Your task to perform on an android device: open wifi settings Image 0: 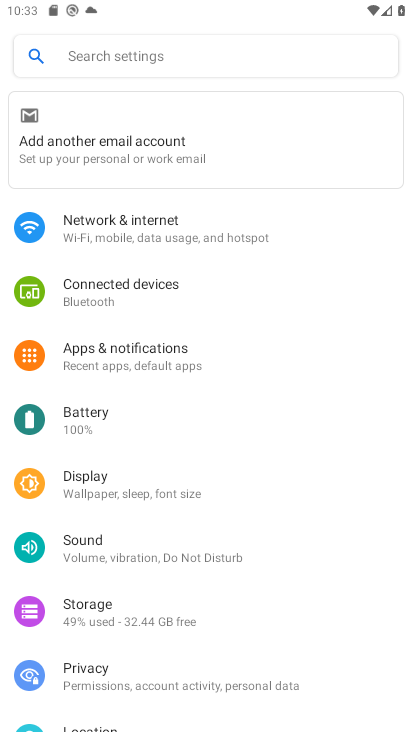
Step 0: click (181, 239)
Your task to perform on an android device: open wifi settings Image 1: 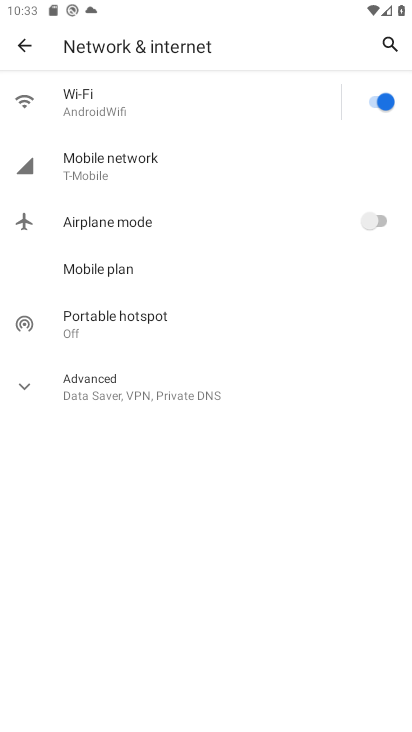
Step 1: click (103, 102)
Your task to perform on an android device: open wifi settings Image 2: 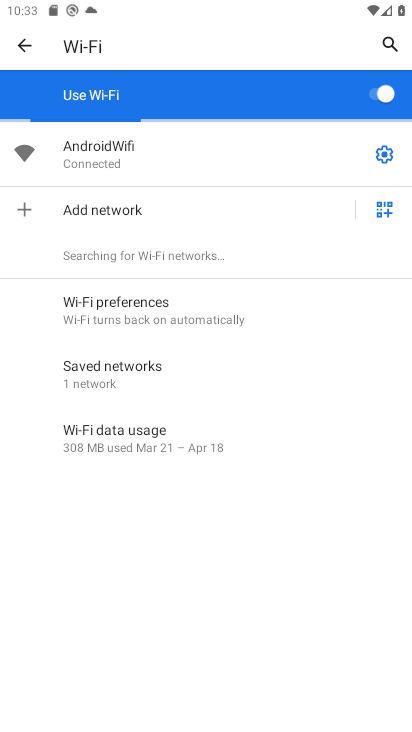
Step 2: task complete